Your task to perform on an android device: Open Yahoo.com Image 0: 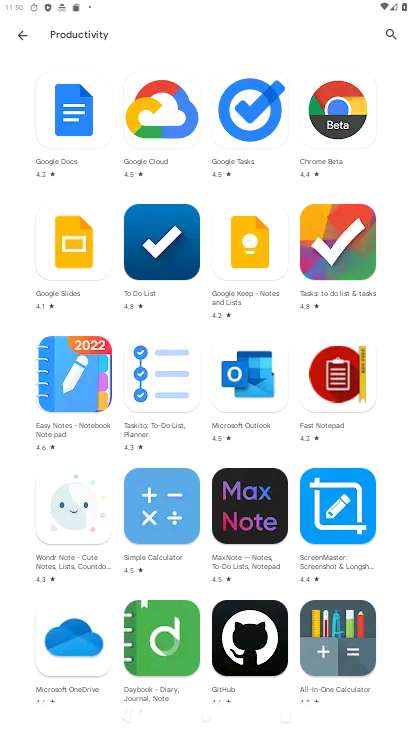
Step 0: press home button
Your task to perform on an android device: Open Yahoo.com Image 1: 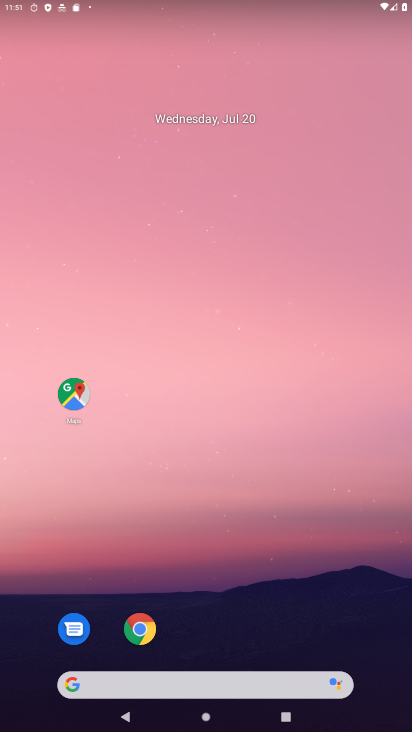
Step 1: drag from (130, 690) to (203, 2)
Your task to perform on an android device: Open Yahoo.com Image 2: 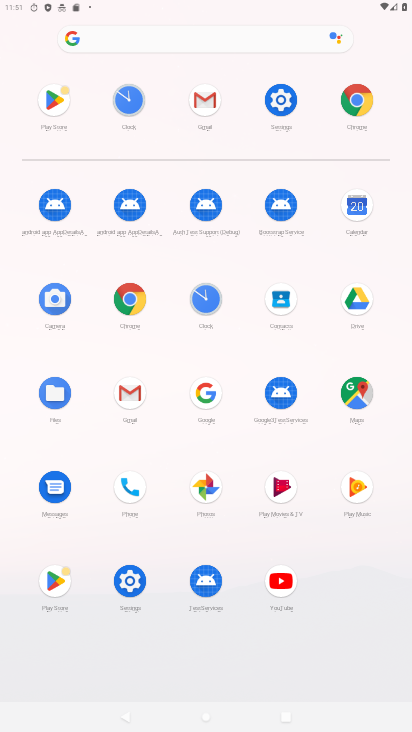
Step 2: click (138, 300)
Your task to perform on an android device: Open Yahoo.com Image 3: 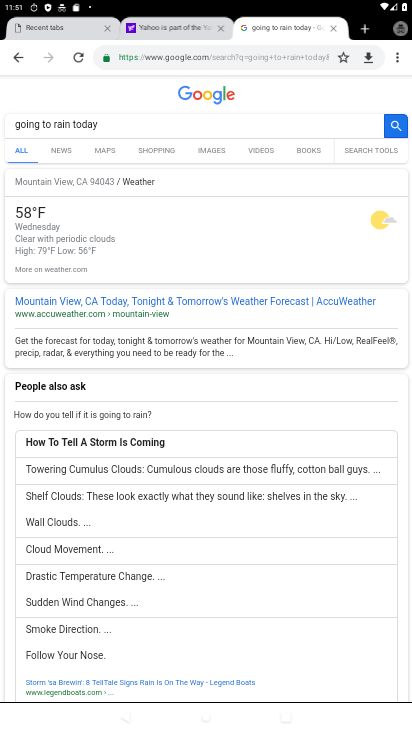
Step 3: click (175, 59)
Your task to perform on an android device: Open Yahoo.com Image 4: 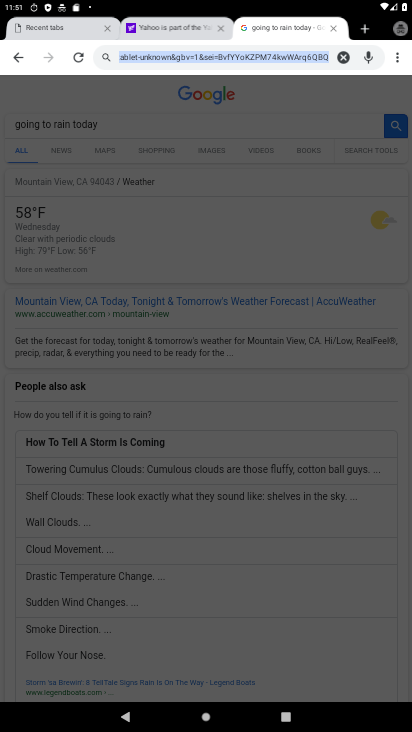
Step 4: type "yahoo.com"
Your task to perform on an android device: Open Yahoo.com Image 5: 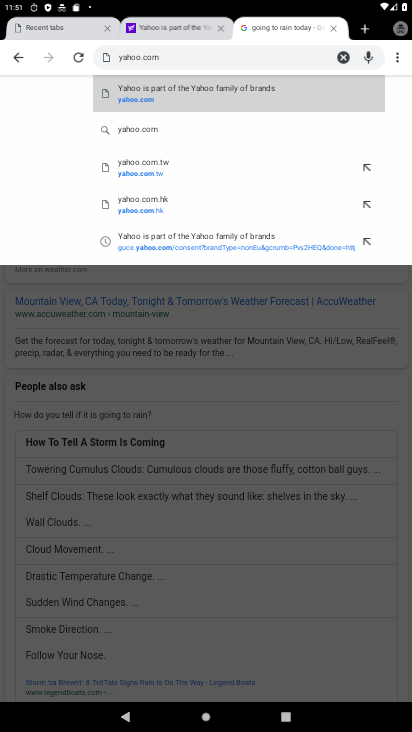
Step 5: click (147, 85)
Your task to perform on an android device: Open Yahoo.com Image 6: 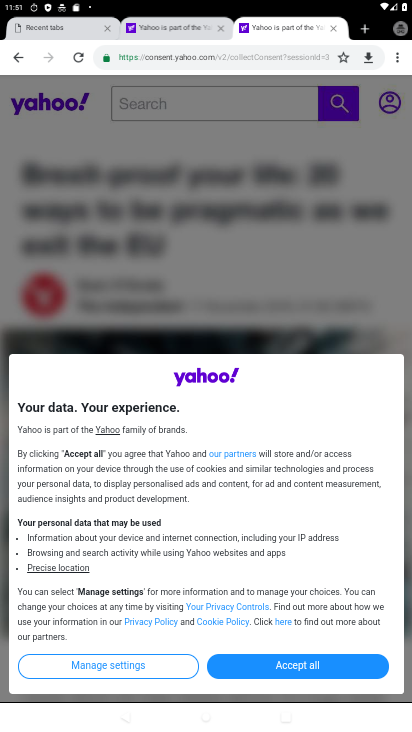
Step 6: task complete